Your task to perform on an android device: move an email to a new category in the gmail app Image 0: 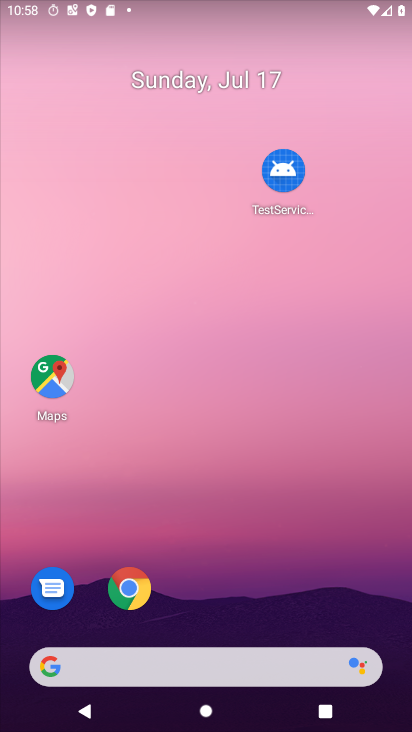
Step 0: drag from (194, 650) to (198, 225)
Your task to perform on an android device: move an email to a new category in the gmail app Image 1: 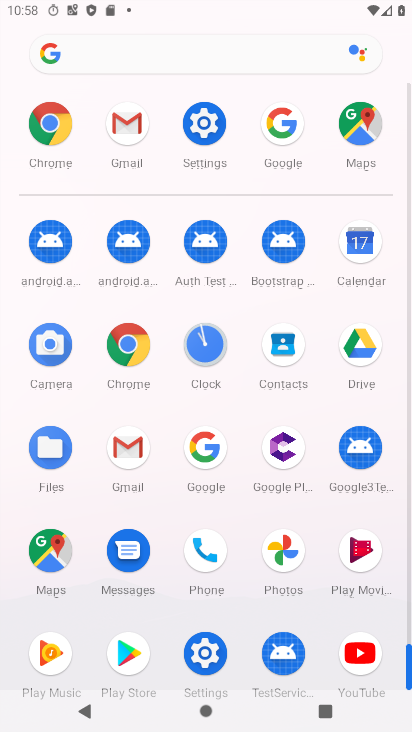
Step 1: click (122, 467)
Your task to perform on an android device: move an email to a new category in the gmail app Image 2: 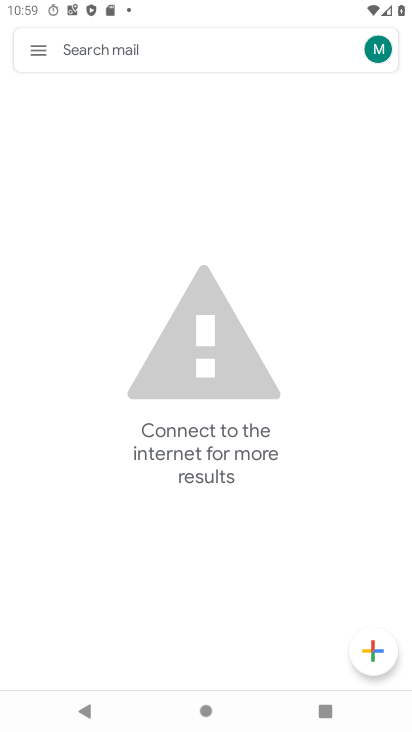
Step 2: click (34, 55)
Your task to perform on an android device: move an email to a new category in the gmail app Image 3: 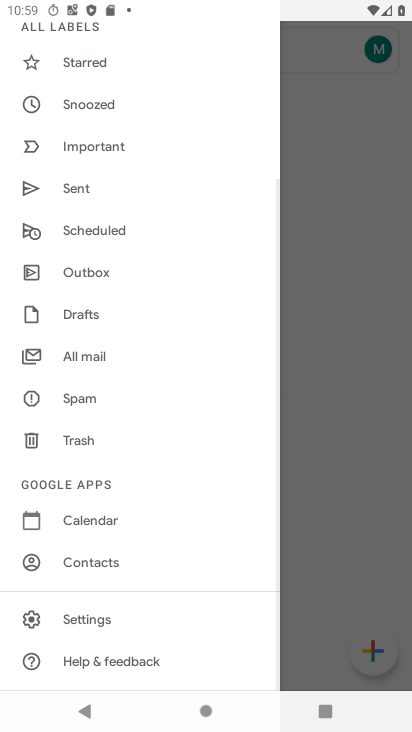
Step 3: click (73, 360)
Your task to perform on an android device: move an email to a new category in the gmail app Image 4: 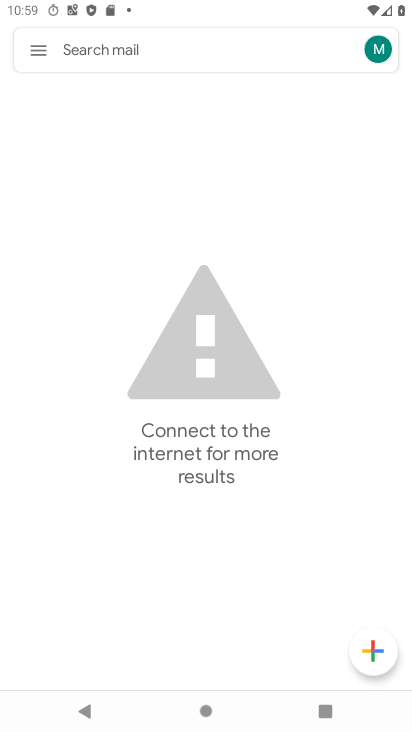
Step 4: task complete